Your task to perform on an android device: Open the stopwatch Image 0: 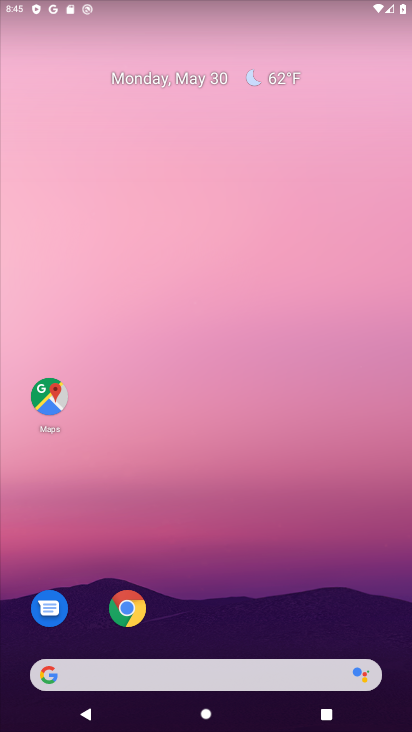
Step 0: drag from (187, 640) to (258, 259)
Your task to perform on an android device: Open the stopwatch Image 1: 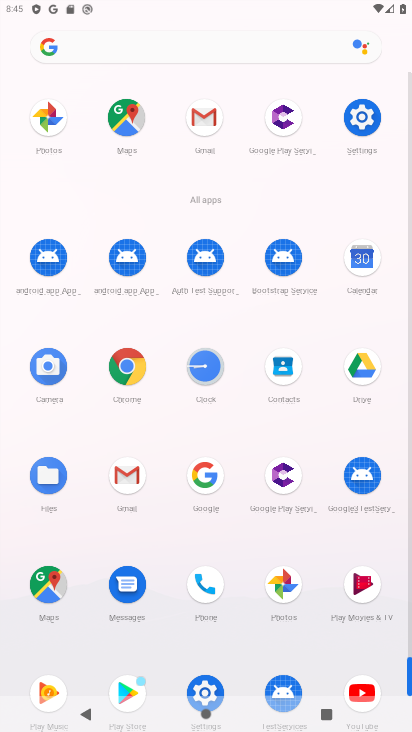
Step 1: click (209, 362)
Your task to perform on an android device: Open the stopwatch Image 2: 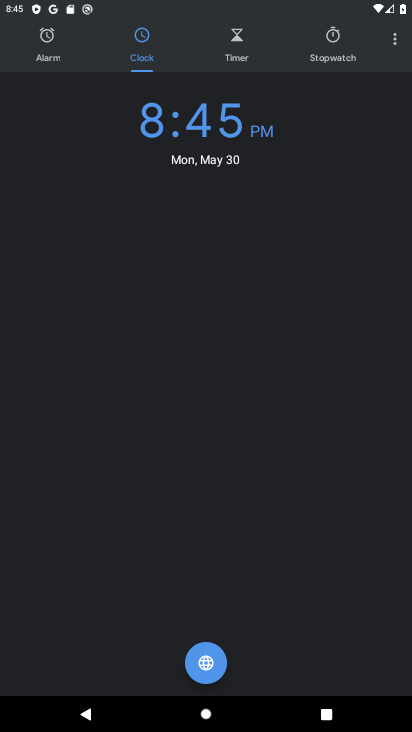
Step 2: click (336, 48)
Your task to perform on an android device: Open the stopwatch Image 3: 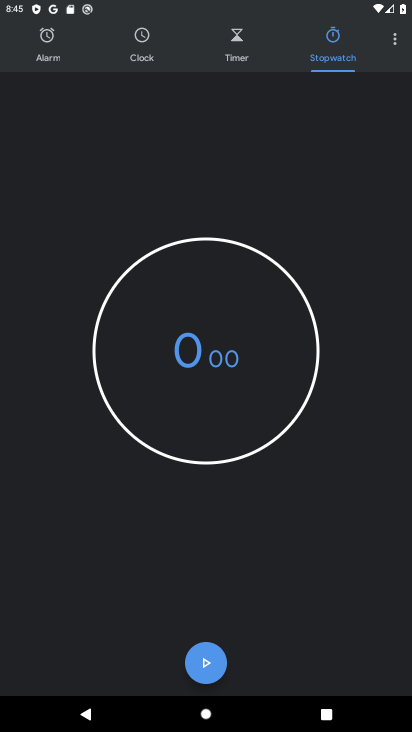
Step 3: task complete